Your task to perform on an android device: Open Youtube and go to the subscriptions tab Image 0: 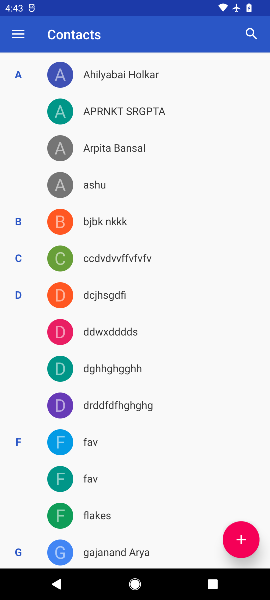
Step 0: press home button
Your task to perform on an android device: Open Youtube and go to the subscriptions tab Image 1: 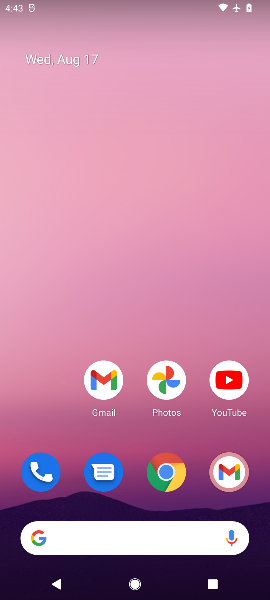
Step 1: drag from (121, 447) to (133, 80)
Your task to perform on an android device: Open Youtube and go to the subscriptions tab Image 2: 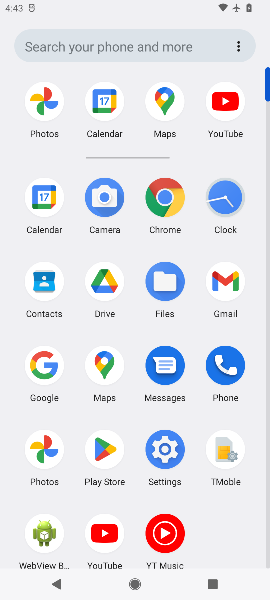
Step 2: click (107, 529)
Your task to perform on an android device: Open Youtube and go to the subscriptions tab Image 3: 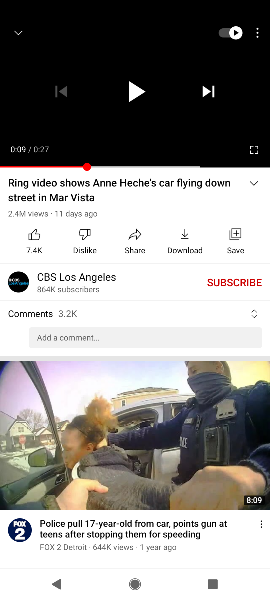
Step 3: press back button
Your task to perform on an android device: Open Youtube and go to the subscriptions tab Image 4: 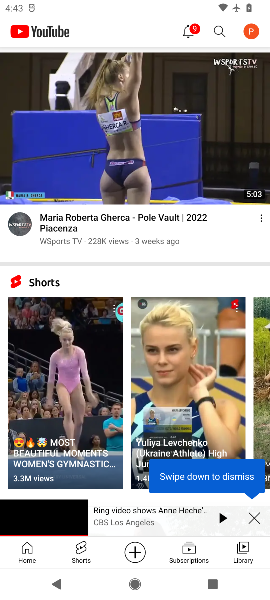
Step 4: click (196, 552)
Your task to perform on an android device: Open Youtube and go to the subscriptions tab Image 5: 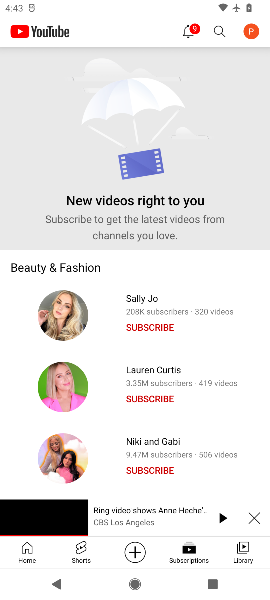
Step 5: click (250, 521)
Your task to perform on an android device: Open Youtube and go to the subscriptions tab Image 6: 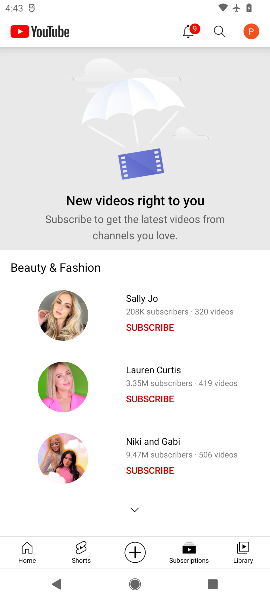
Step 6: task complete